Your task to perform on an android device: snooze an email in the gmail app Image 0: 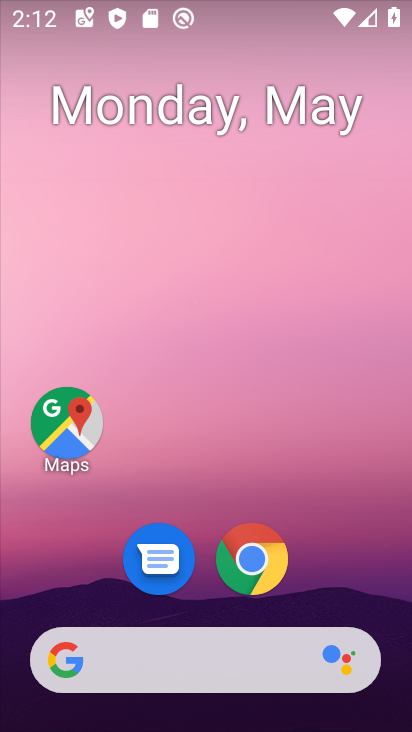
Step 0: drag from (179, 694) to (240, 92)
Your task to perform on an android device: snooze an email in the gmail app Image 1: 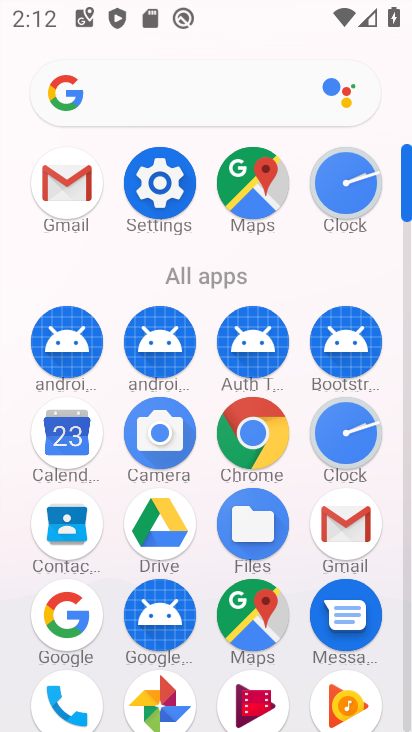
Step 1: click (69, 194)
Your task to perform on an android device: snooze an email in the gmail app Image 2: 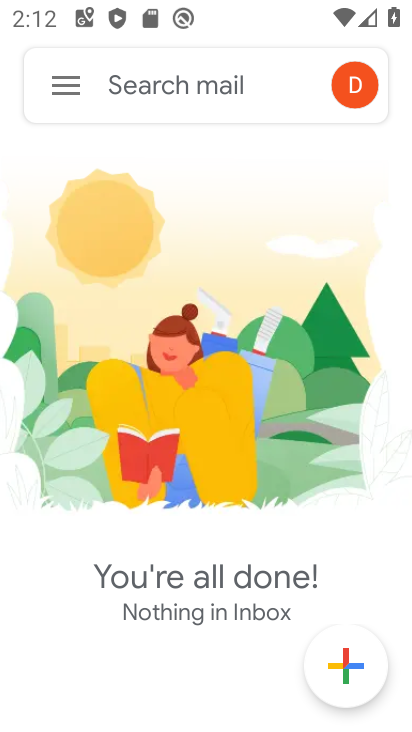
Step 2: click (55, 81)
Your task to perform on an android device: snooze an email in the gmail app Image 3: 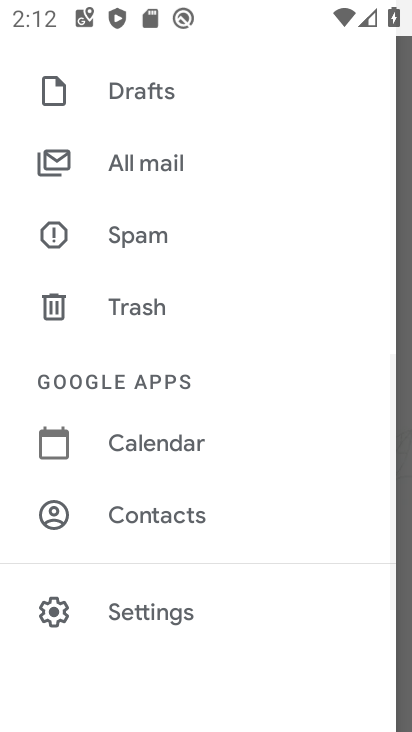
Step 3: drag from (160, 223) to (207, 657)
Your task to perform on an android device: snooze an email in the gmail app Image 4: 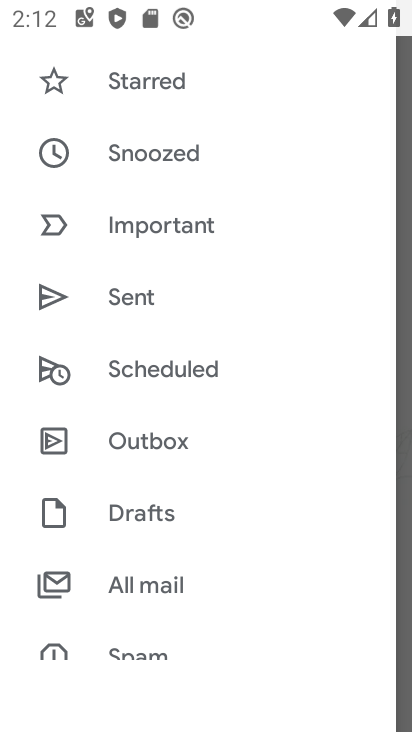
Step 4: click (141, 155)
Your task to perform on an android device: snooze an email in the gmail app Image 5: 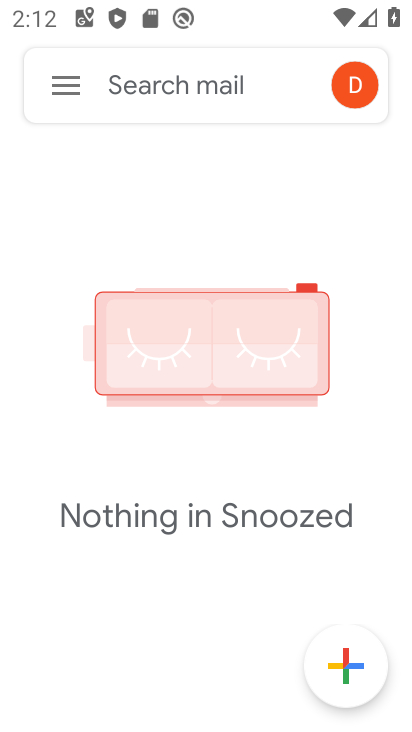
Step 5: task complete